Your task to perform on an android device: turn pop-ups off in chrome Image 0: 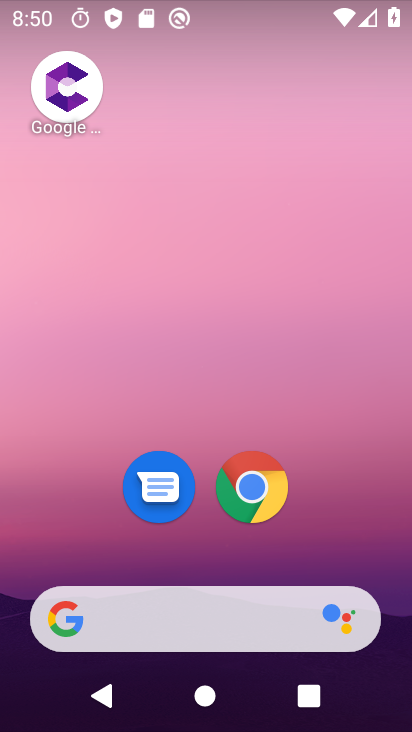
Step 0: click (264, 487)
Your task to perform on an android device: turn pop-ups off in chrome Image 1: 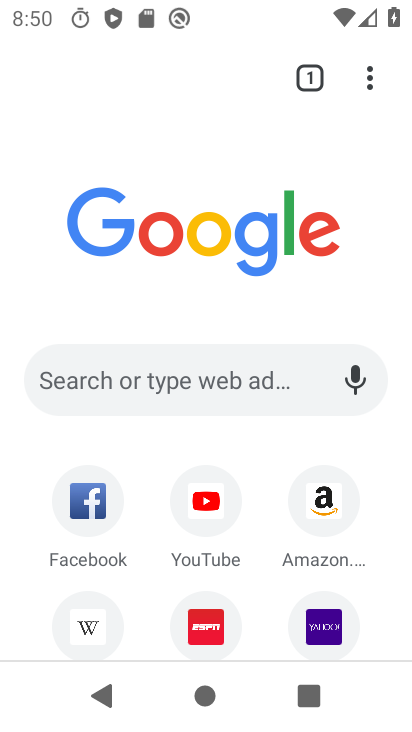
Step 1: click (370, 83)
Your task to perform on an android device: turn pop-ups off in chrome Image 2: 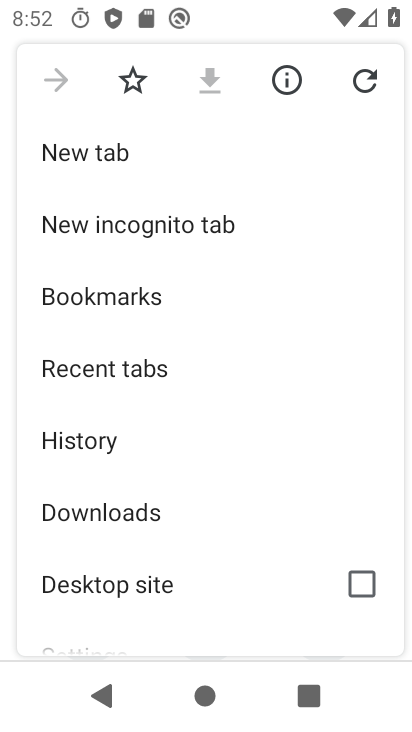
Step 2: drag from (138, 602) to (146, 170)
Your task to perform on an android device: turn pop-ups off in chrome Image 3: 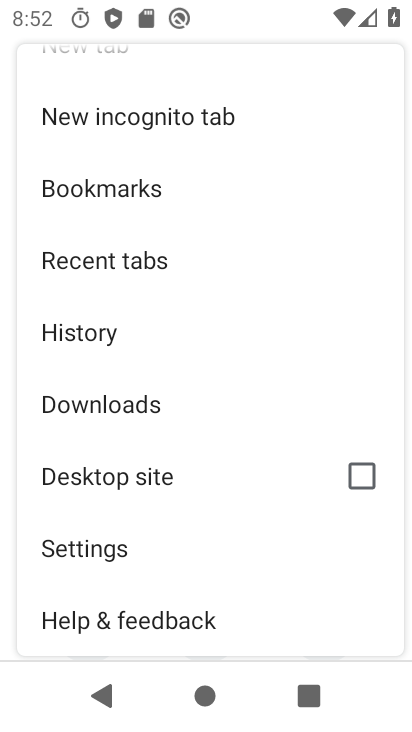
Step 3: click (84, 541)
Your task to perform on an android device: turn pop-ups off in chrome Image 4: 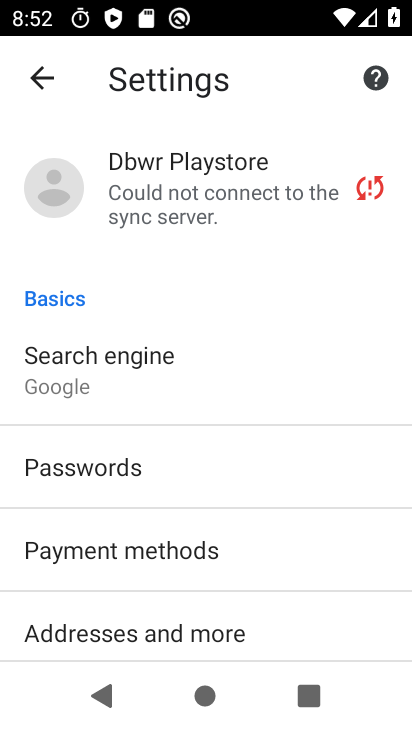
Step 4: drag from (176, 644) to (164, 227)
Your task to perform on an android device: turn pop-ups off in chrome Image 5: 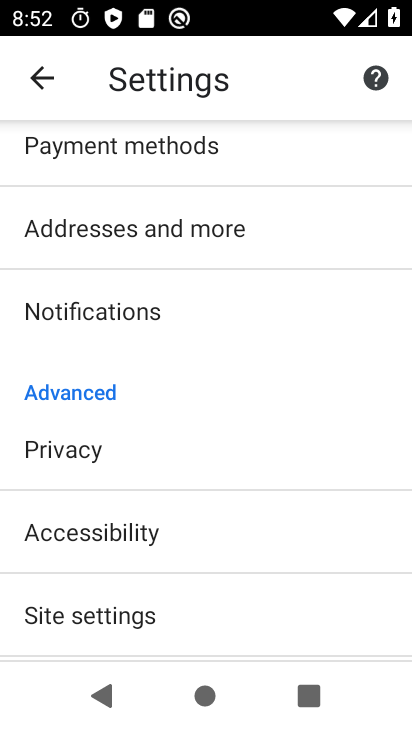
Step 5: click (127, 614)
Your task to perform on an android device: turn pop-ups off in chrome Image 6: 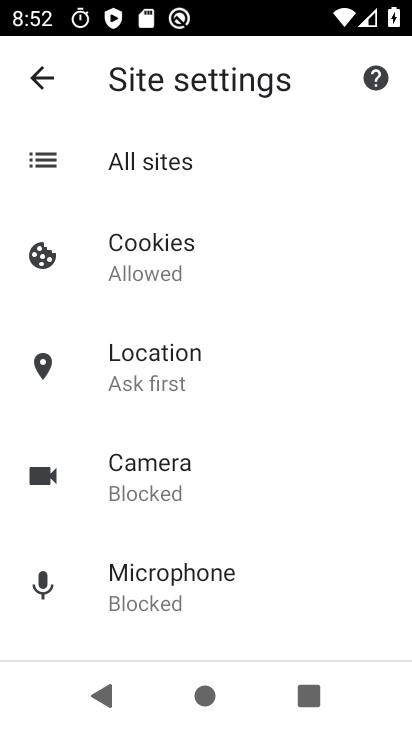
Step 6: drag from (204, 575) to (204, 43)
Your task to perform on an android device: turn pop-ups off in chrome Image 7: 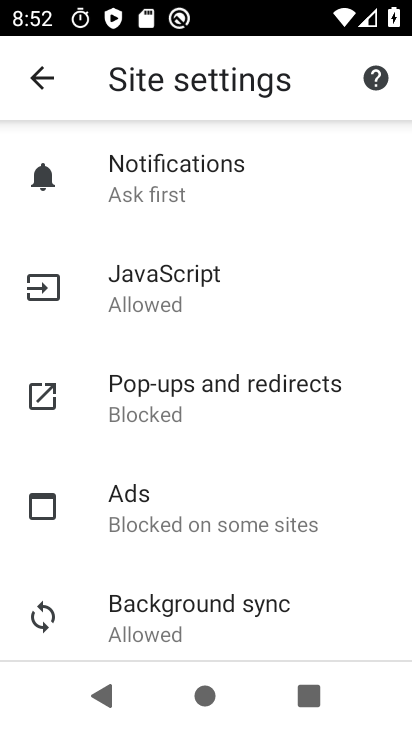
Step 7: click (187, 400)
Your task to perform on an android device: turn pop-ups off in chrome Image 8: 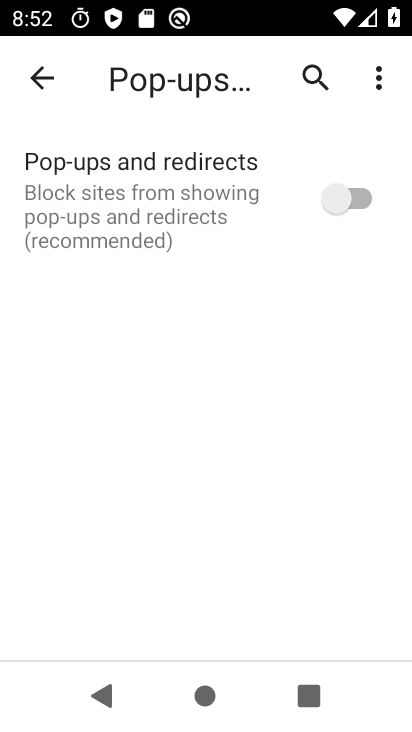
Step 8: task complete